Your task to perform on an android device: Search for energizer triple a on newegg.com, select the first entry, add it to the cart, then select checkout. Image 0: 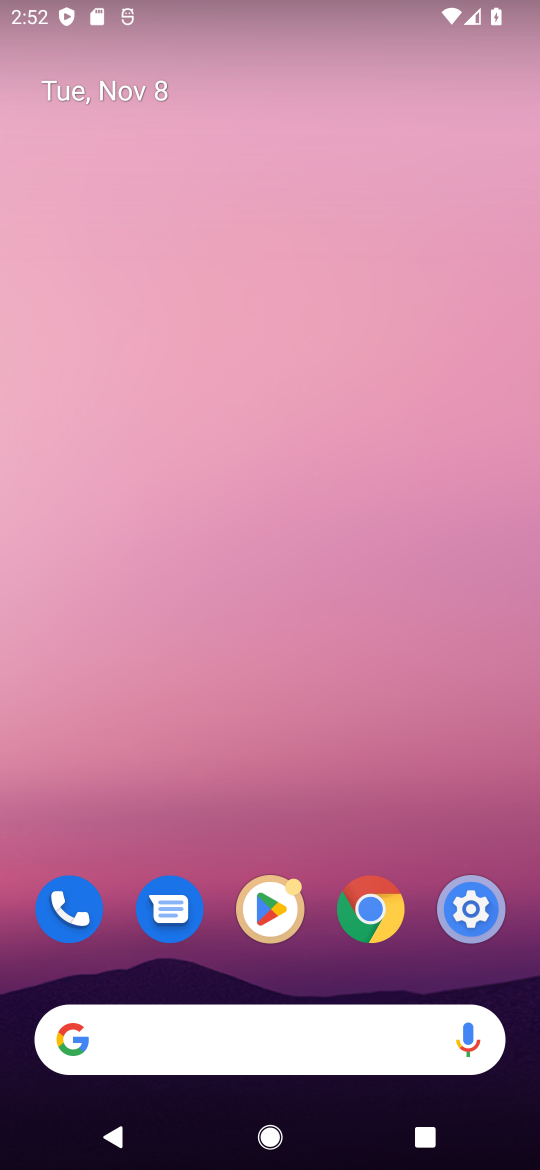
Step 0: click (369, 909)
Your task to perform on an android device: Search for energizer triple a on newegg.com, select the first entry, add it to the cart, then select checkout. Image 1: 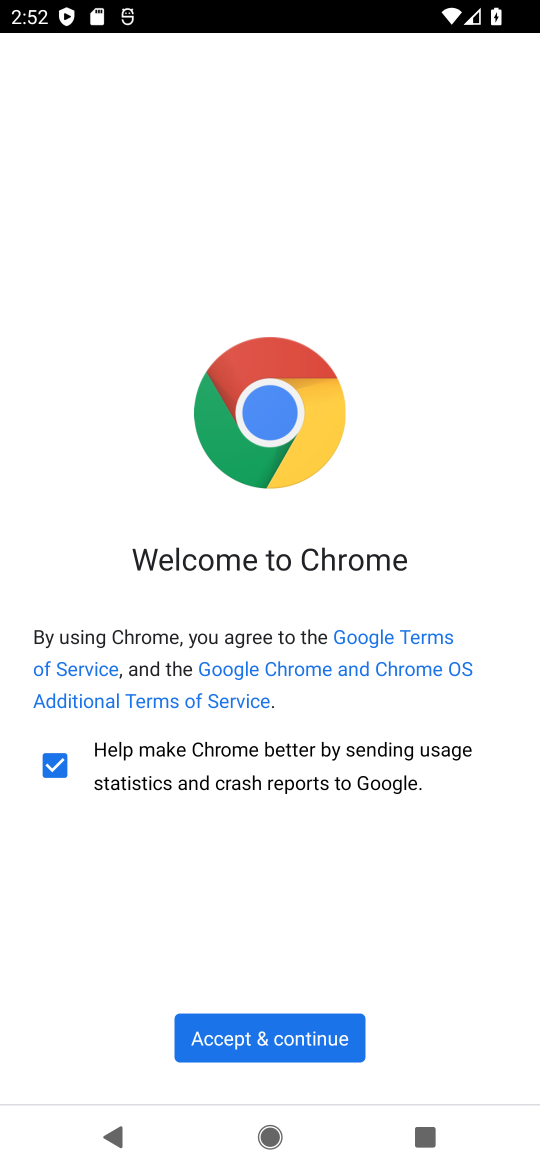
Step 1: click (253, 1046)
Your task to perform on an android device: Search for energizer triple a on newegg.com, select the first entry, add it to the cart, then select checkout. Image 2: 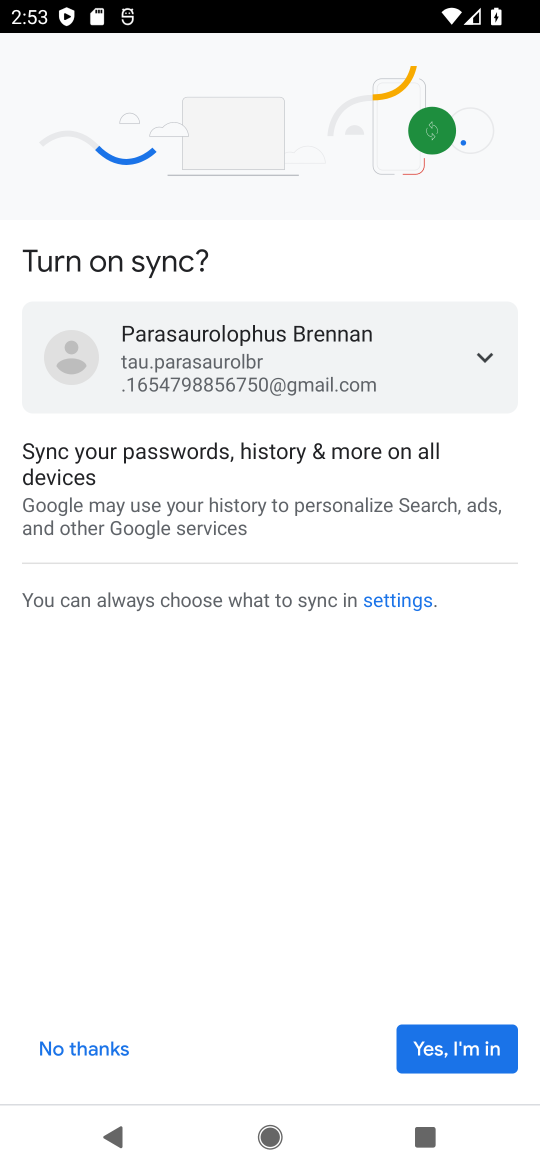
Step 2: click (449, 1052)
Your task to perform on an android device: Search for energizer triple a on newegg.com, select the first entry, add it to the cart, then select checkout. Image 3: 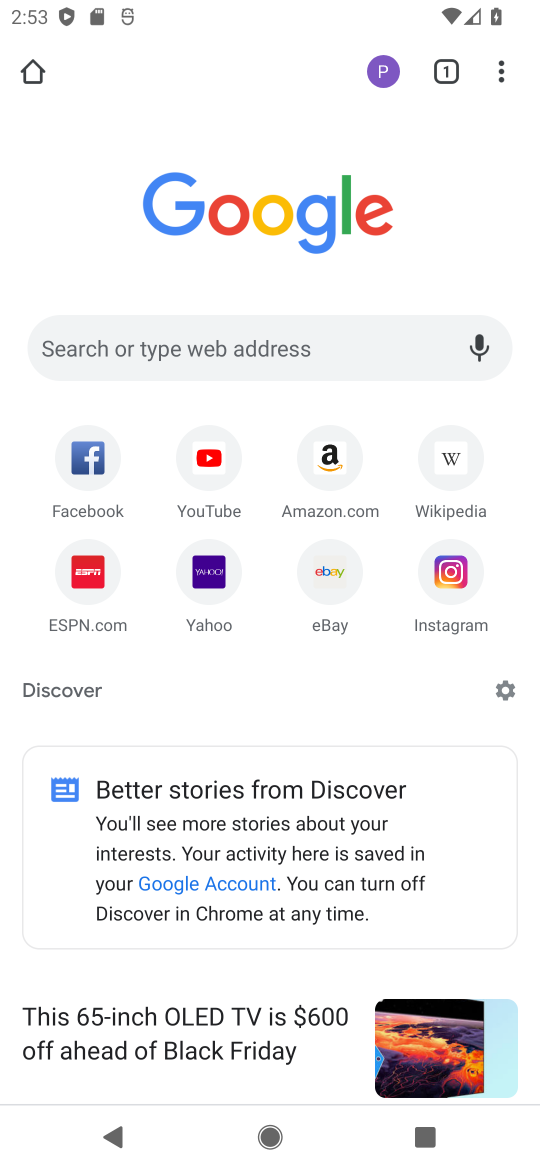
Step 3: click (226, 343)
Your task to perform on an android device: Search for energizer triple a on newegg.com, select the first entry, add it to the cart, then select checkout. Image 4: 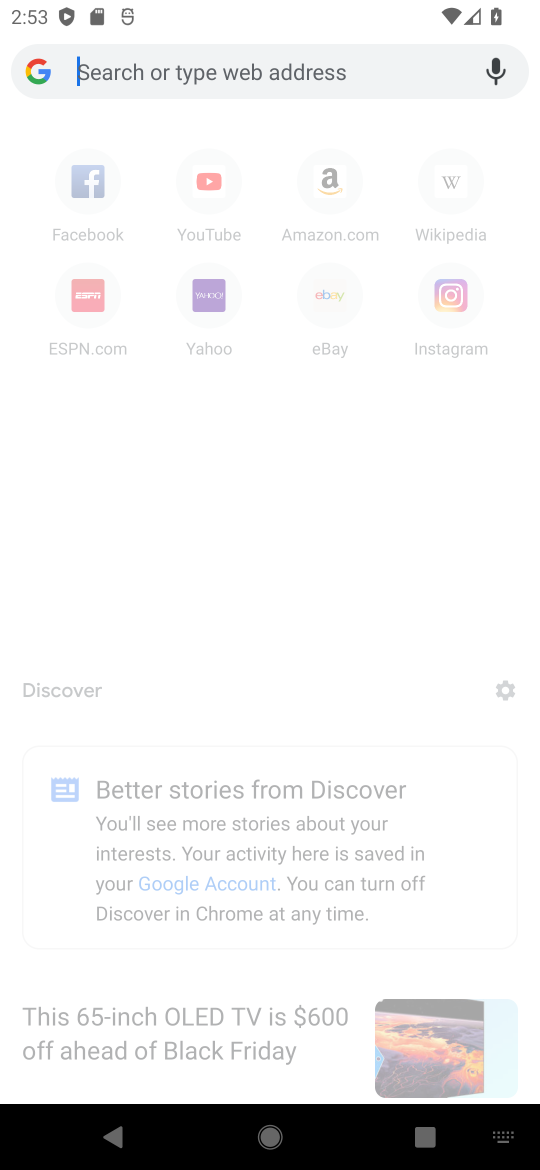
Step 4: type "newegg"
Your task to perform on an android device: Search for energizer triple a on newegg.com, select the first entry, add it to the cart, then select checkout. Image 5: 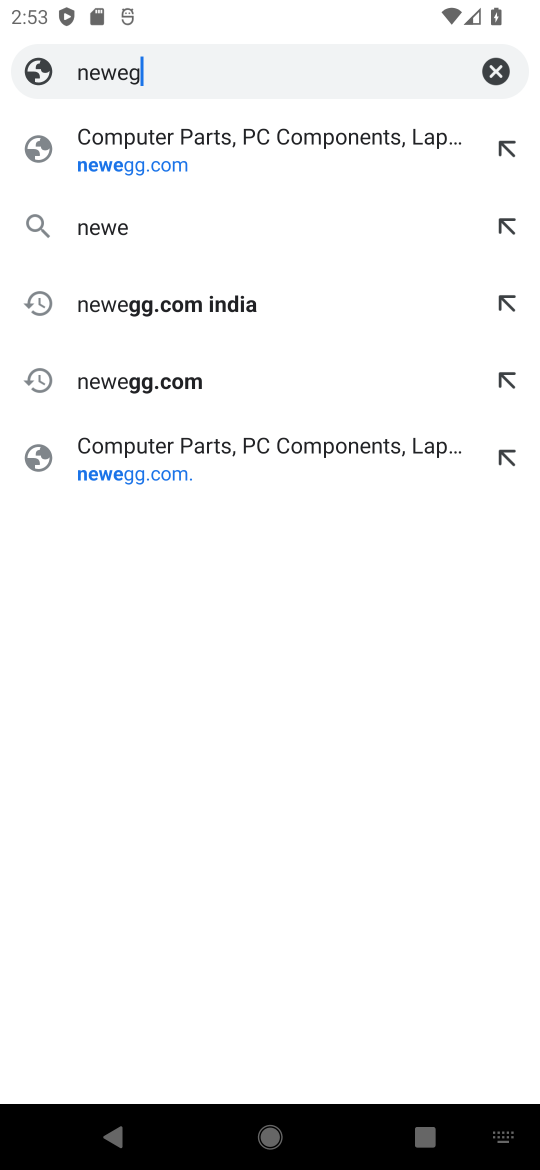
Step 5: press enter
Your task to perform on an android device: Search for energizer triple a on newegg.com, select the first entry, add it to the cart, then select checkout. Image 6: 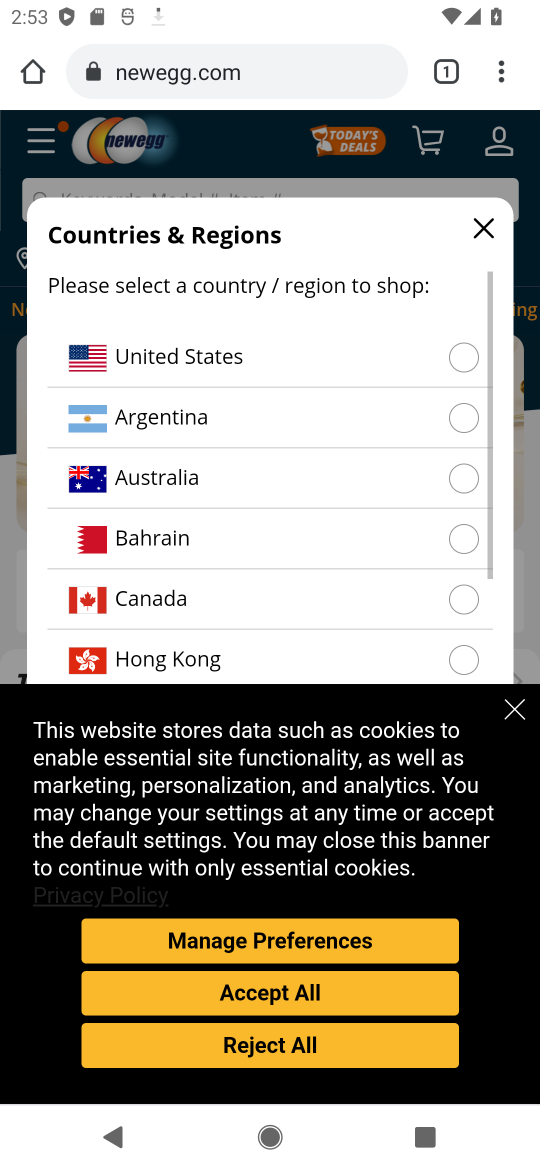
Step 6: click (479, 216)
Your task to perform on an android device: Search for energizer triple a on newegg.com, select the first entry, add it to the cart, then select checkout. Image 7: 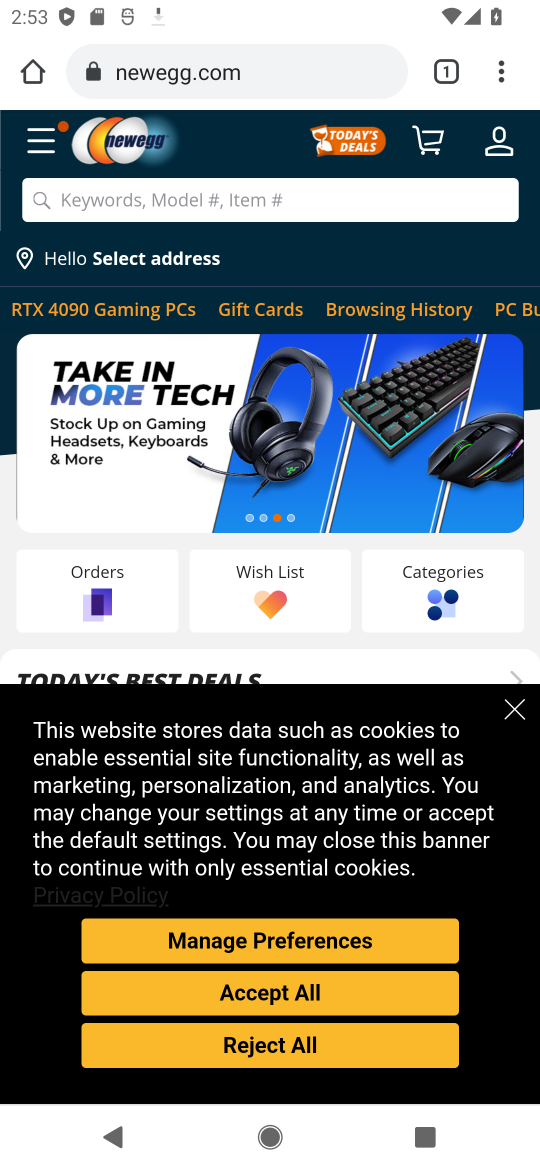
Step 7: click (524, 709)
Your task to perform on an android device: Search for energizer triple a on newegg.com, select the first entry, add it to the cart, then select checkout. Image 8: 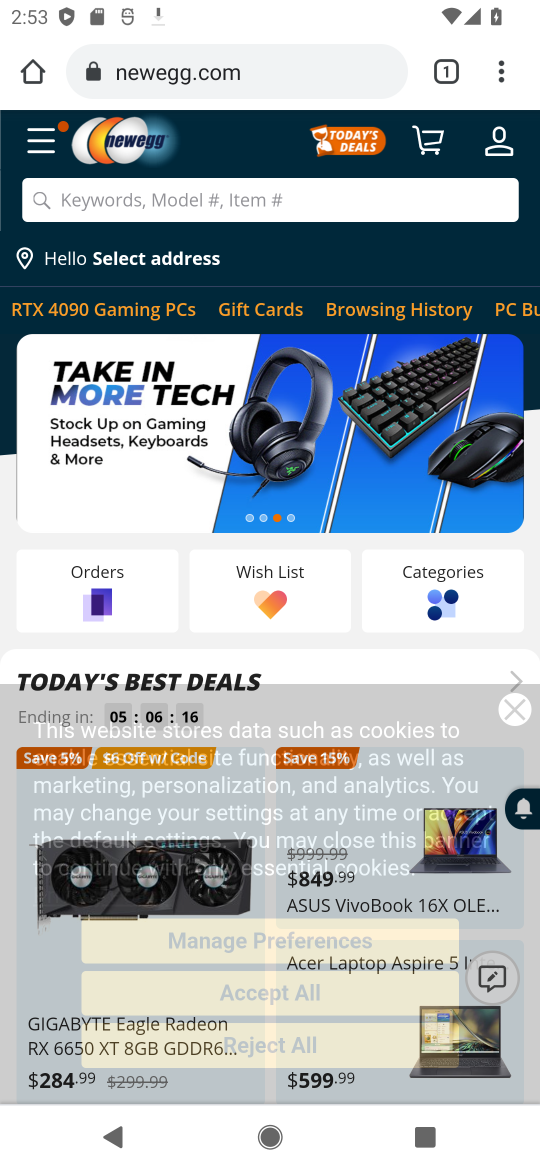
Step 8: click (195, 193)
Your task to perform on an android device: Search for energizer triple a on newegg.com, select the first entry, add it to the cart, then select checkout. Image 9: 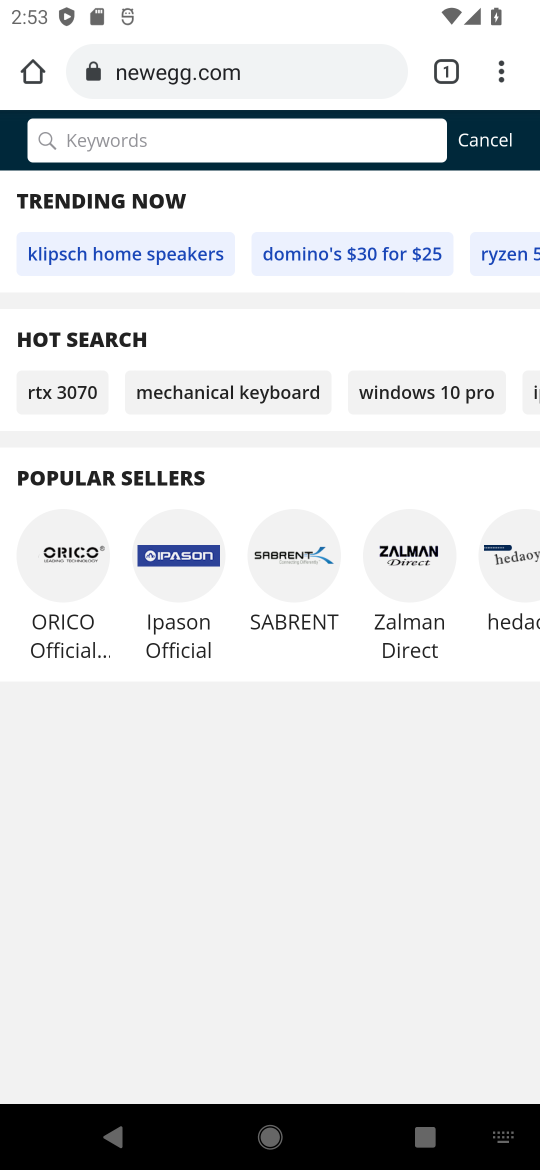
Step 9: type "energizer triple a"
Your task to perform on an android device: Search for energizer triple a on newegg.com, select the first entry, add it to the cart, then select checkout. Image 10: 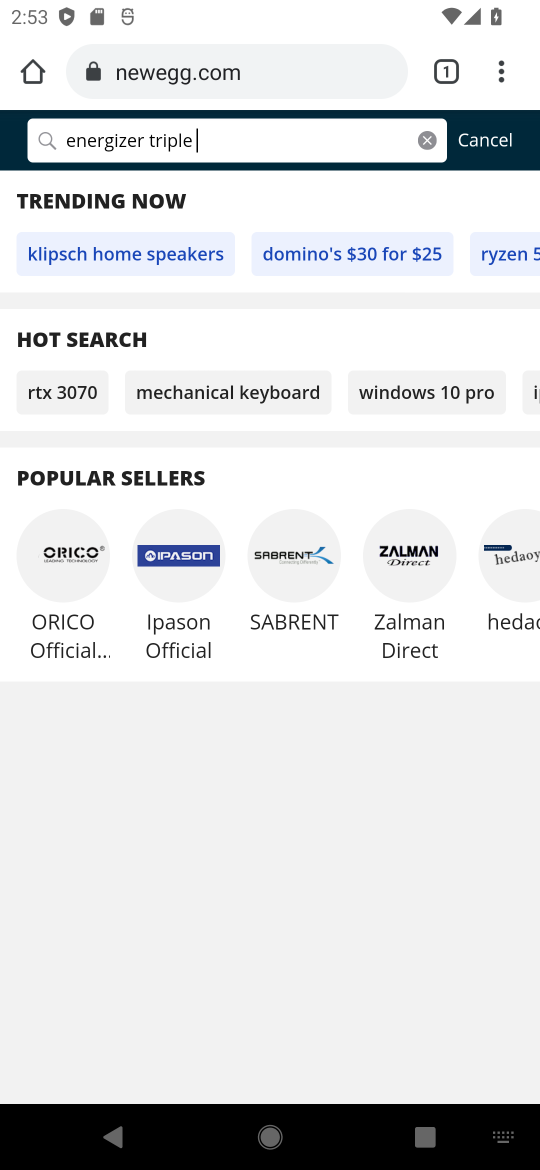
Step 10: press enter
Your task to perform on an android device: Search for energizer triple a on newegg.com, select the first entry, add it to the cart, then select checkout. Image 11: 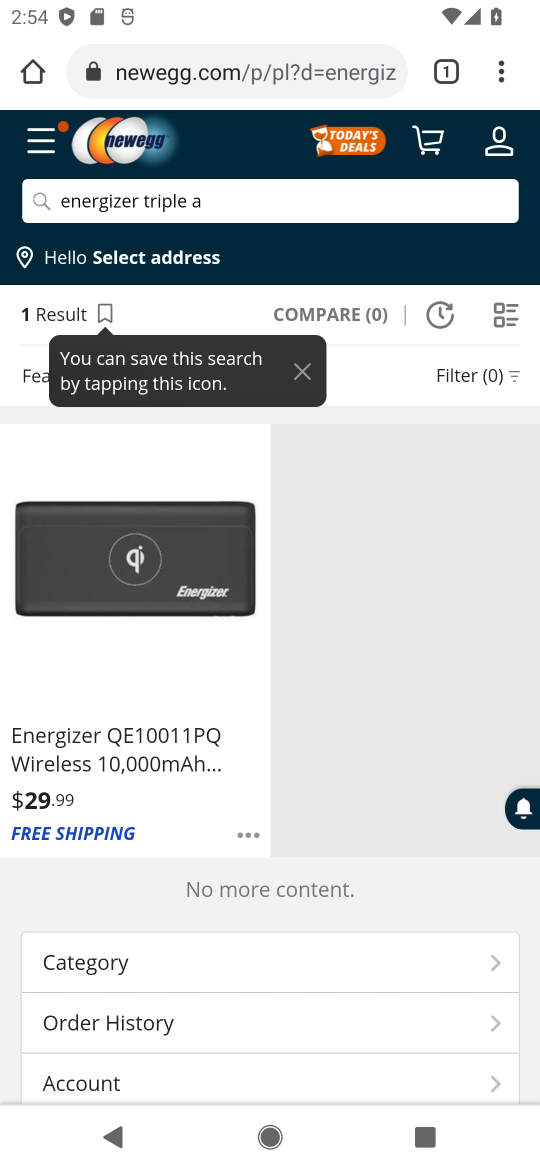
Step 11: click (158, 675)
Your task to perform on an android device: Search for energizer triple a on newegg.com, select the first entry, add it to the cart, then select checkout. Image 12: 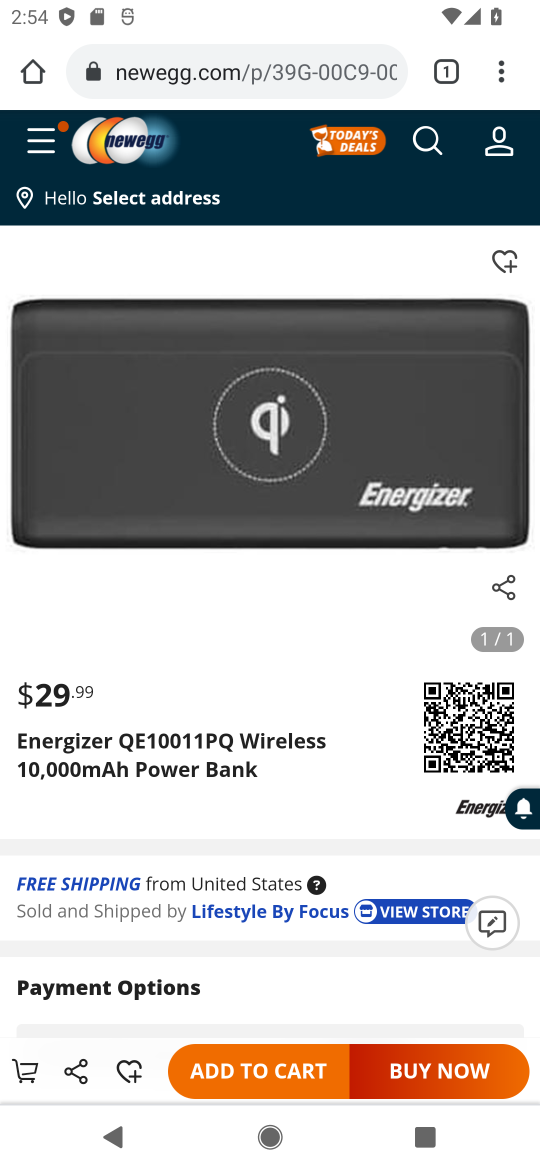
Step 12: task complete